Your task to perform on an android device: Open maps Image 0: 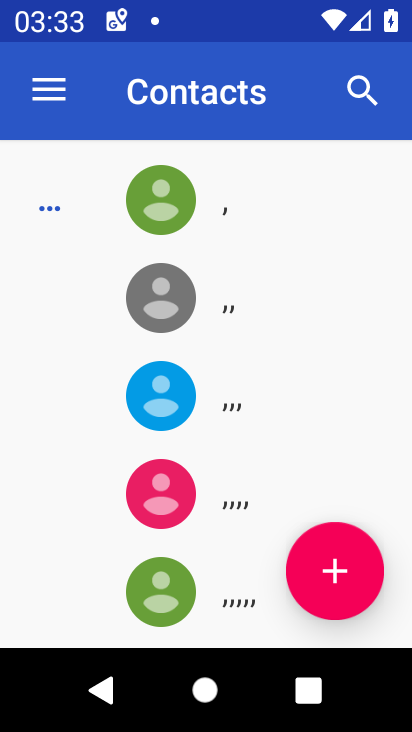
Step 0: press home button
Your task to perform on an android device: Open maps Image 1: 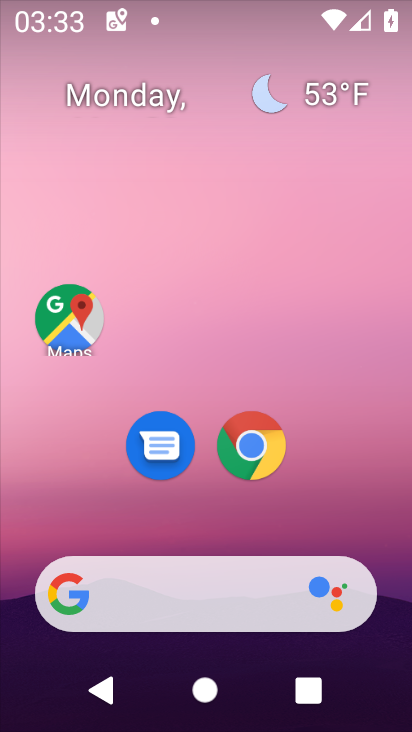
Step 1: click (58, 298)
Your task to perform on an android device: Open maps Image 2: 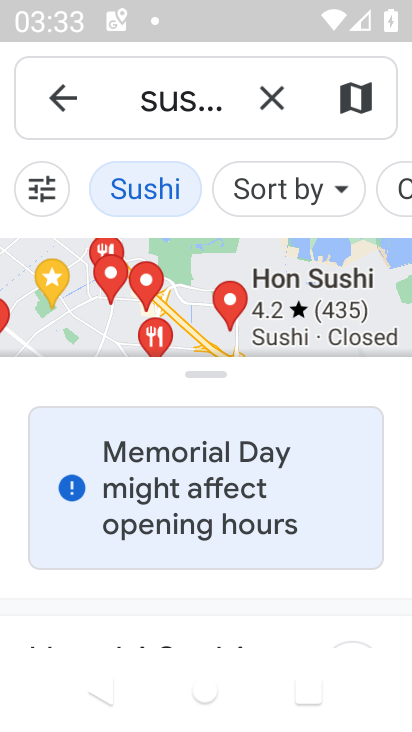
Step 2: click (45, 103)
Your task to perform on an android device: Open maps Image 3: 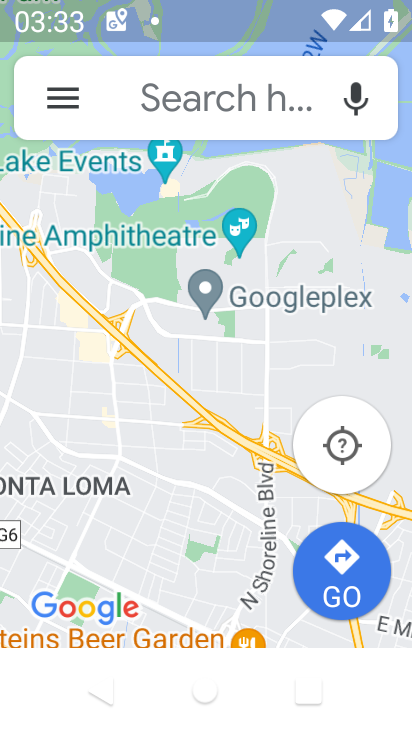
Step 3: task complete